Your task to perform on an android device: allow cookies in the chrome app Image 0: 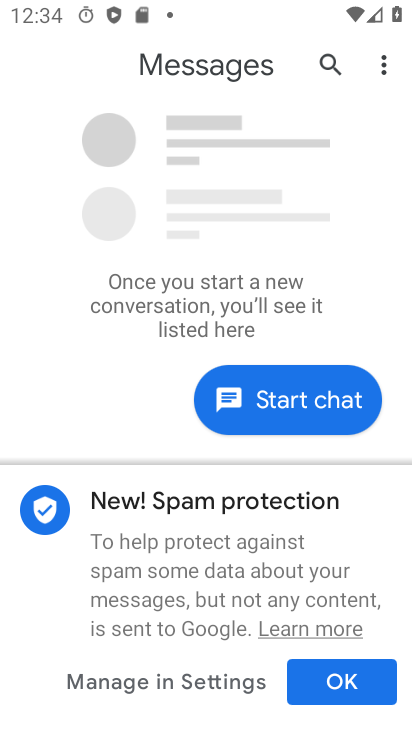
Step 0: press home button
Your task to perform on an android device: allow cookies in the chrome app Image 1: 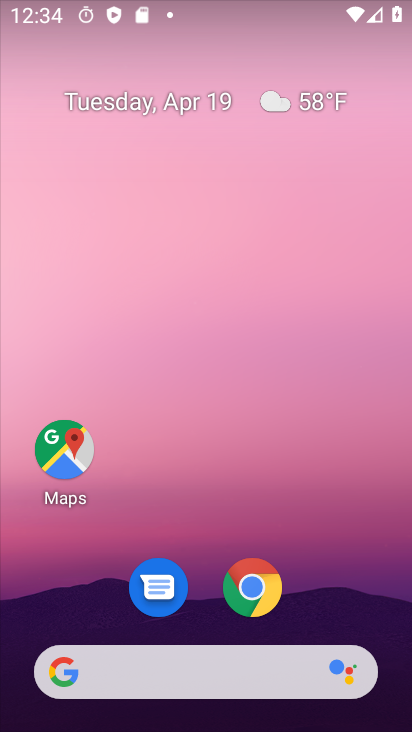
Step 1: click (275, 589)
Your task to perform on an android device: allow cookies in the chrome app Image 2: 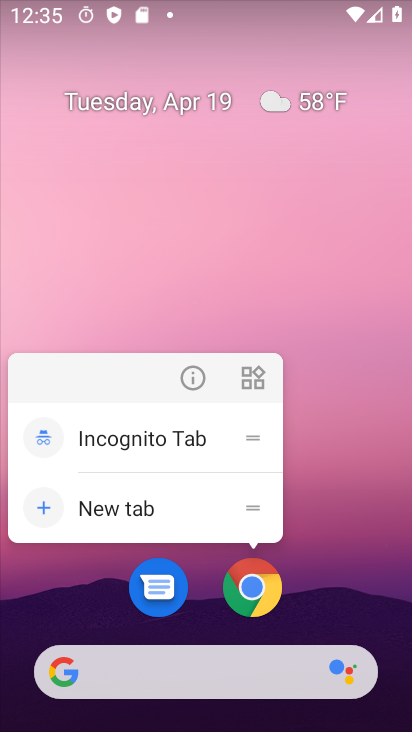
Step 2: click (272, 588)
Your task to perform on an android device: allow cookies in the chrome app Image 3: 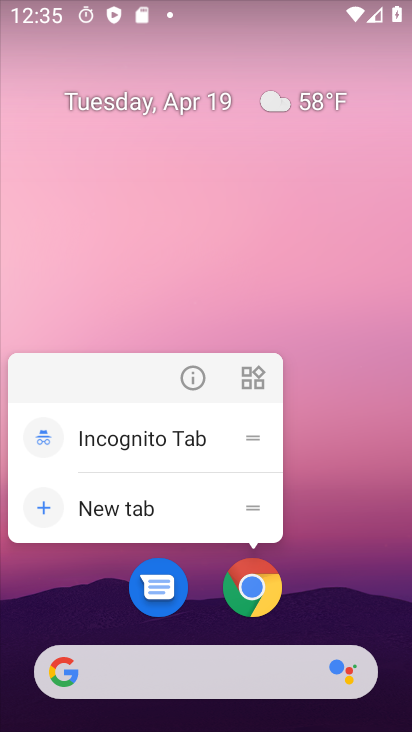
Step 3: click (258, 592)
Your task to perform on an android device: allow cookies in the chrome app Image 4: 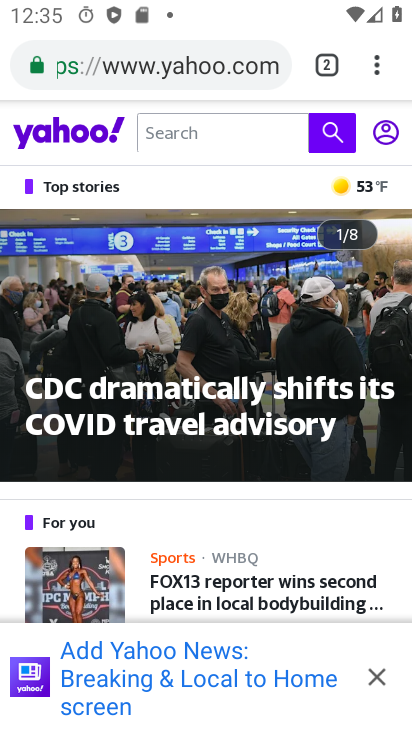
Step 4: click (375, 66)
Your task to perform on an android device: allow cookies in the chrome app Image 5: 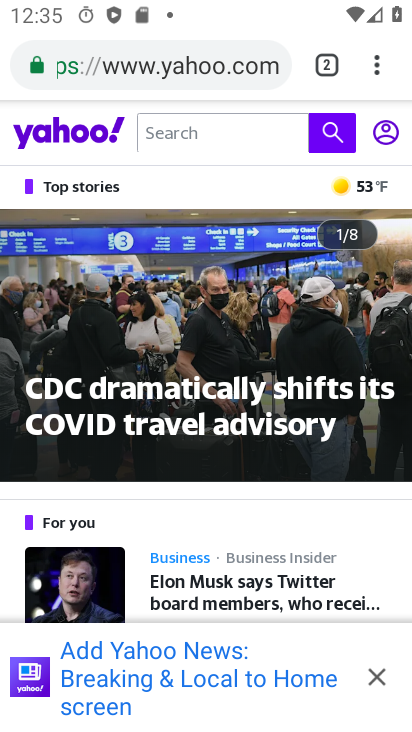
Step 5: click (377, 68)
Your task to perform on an android device: allow cookies in the chrome app Image 6: 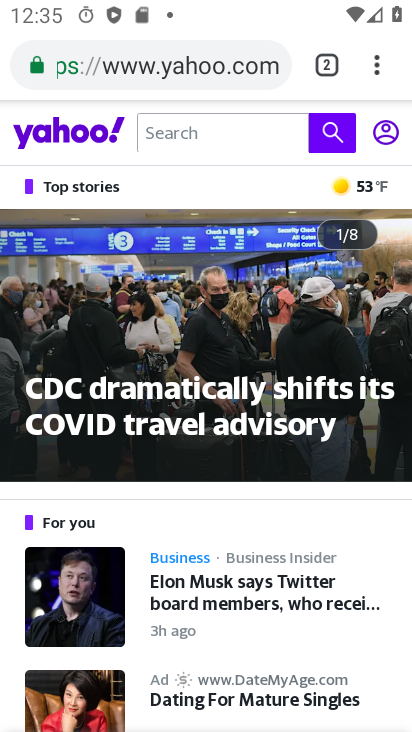
Step 6: click (387, 77)
Your task to perform on an android device: allow cookies in the chrome app Image 7: 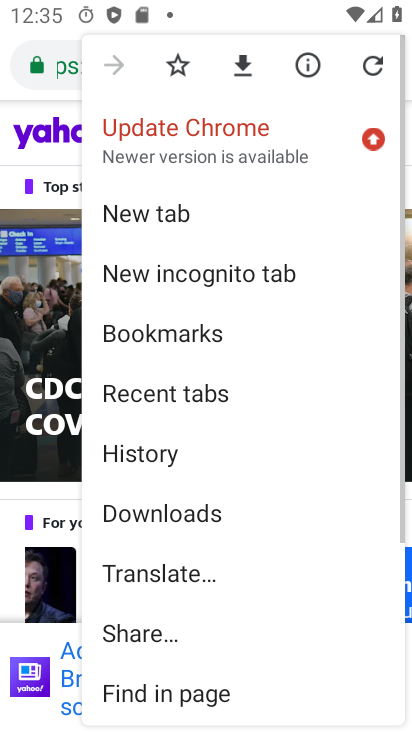
Step 7: drag from (268, 636) to (283, 342)
Your task to perform on an android device: allow cookies in the chrome app Image 8: 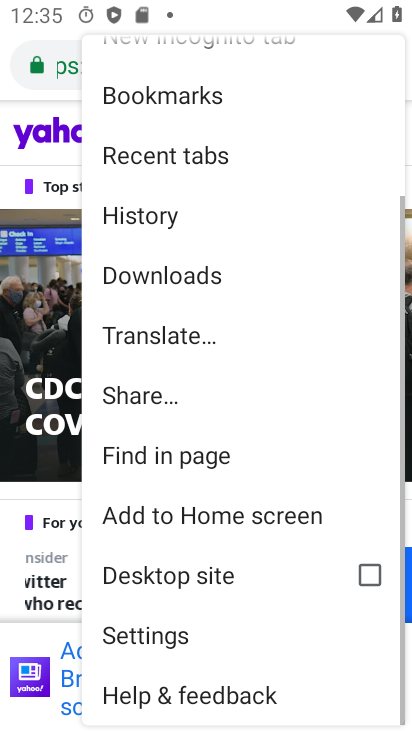
Step 8: click (178, 650)
Your task to perform on an android device: allow cookies in the chrome app Image 9: 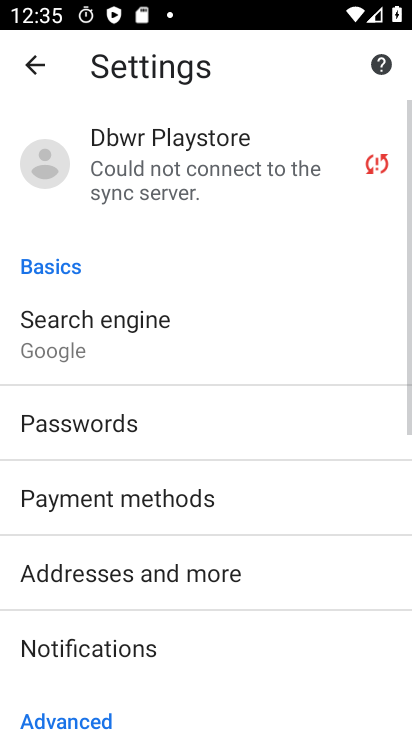
Step 9: drag from (256, 663) to (265, 278)
Your task to perform on an android device: allow cookies in the chrome app Image 10: 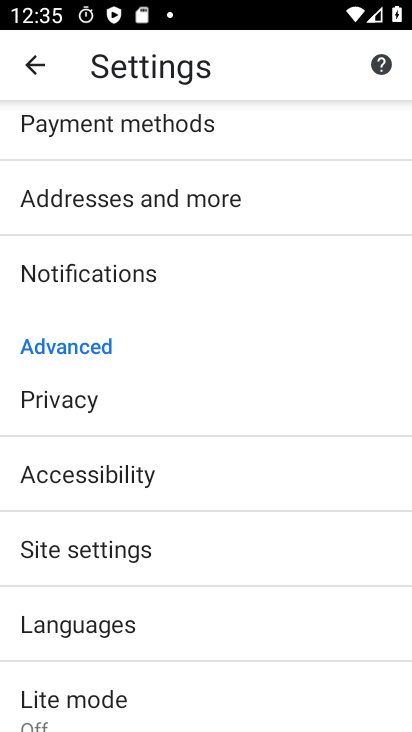
Step 10: drag from (318, 635) to (296, 354)
Your task to perform on an android device: allow cookies in the chrome app Image 11: 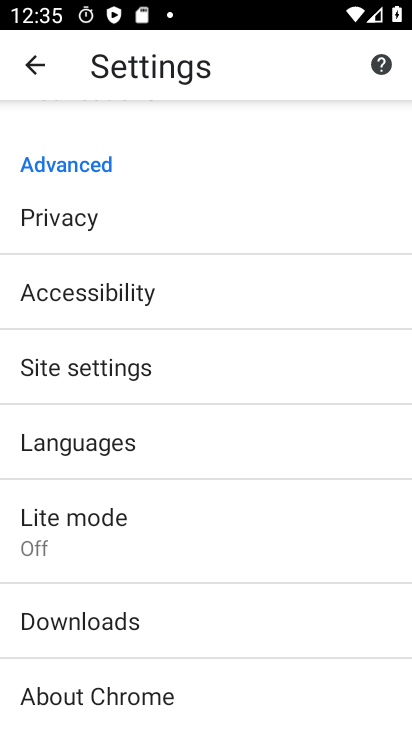
Step 11: click (143, 369)
Your task to perform on an android device: allow cookies in the chrome app Image 12: 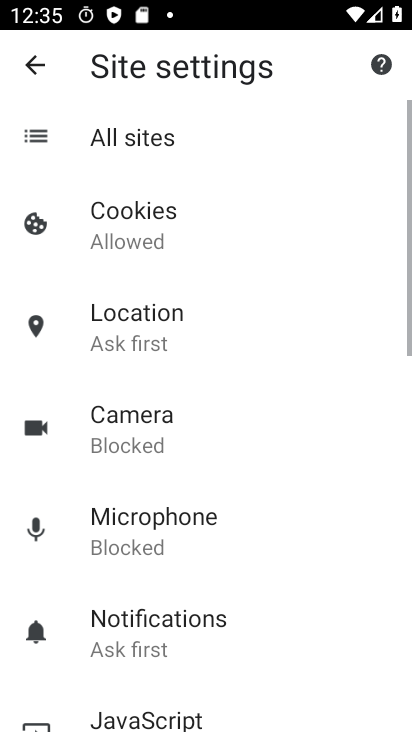
Step 12: click (159, 225)
Your task to perform on an android device: allow cookies in the chrome app Image 13: 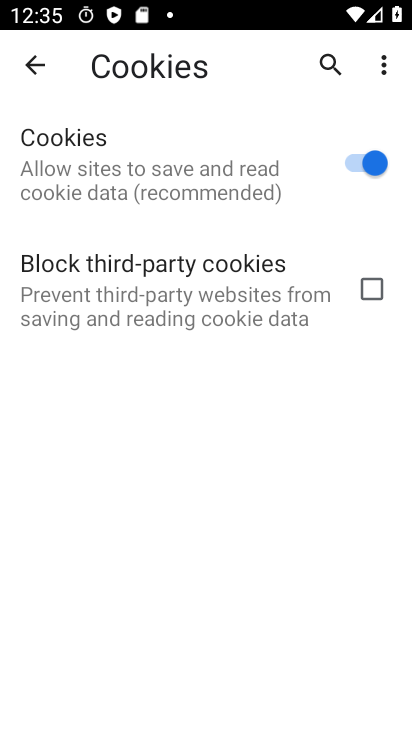
Step 13: task complete